Your task to perform on an android device: What is the news today? Image 0: 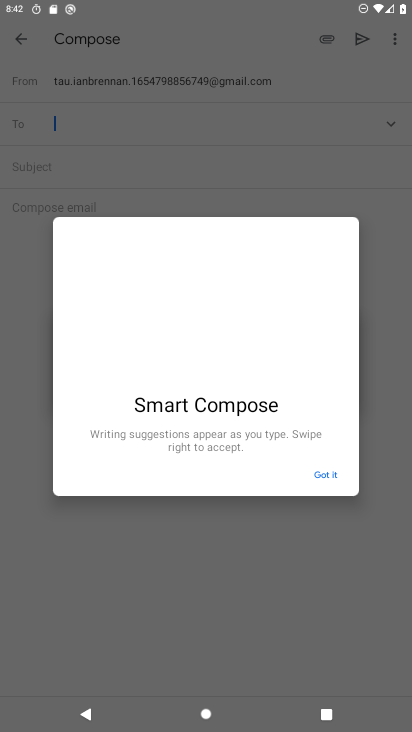
Step 0: press home button
Your task to perform on an android device: What is the news today? Image 1: 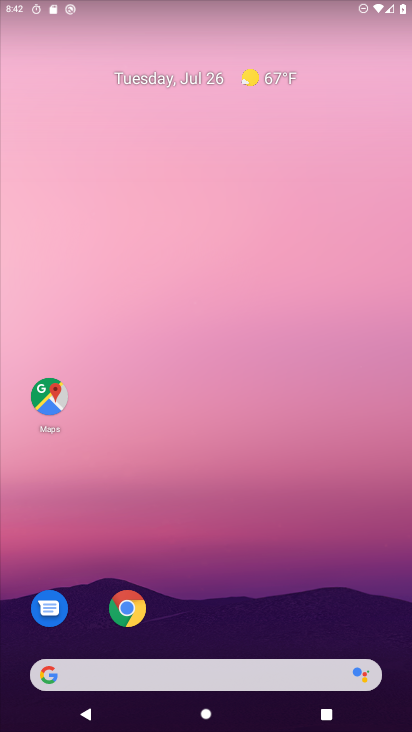
Step 1: click (196, 674)
Your task to perform on an android device: What is the news today? Image 2: 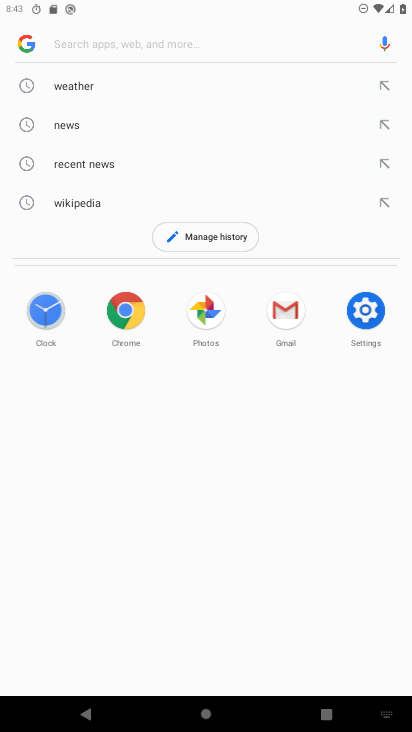
Step 2: type "news today ?"
Your task to perform on an android device: What is the news today? Image 3: 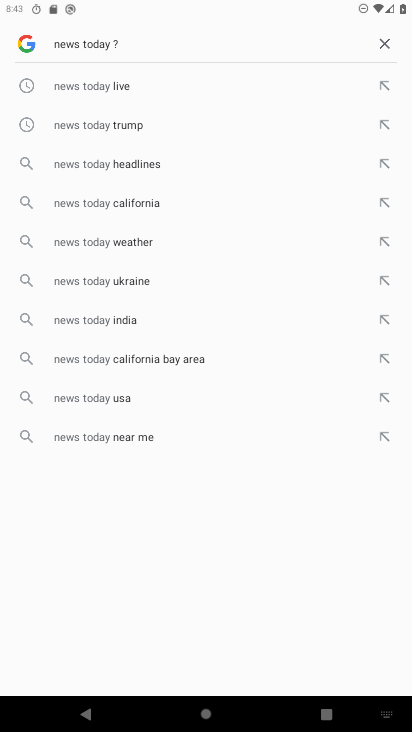
Step 3: click (127, 90)
Your task to perform on an android device: What is the news today? Image 4: 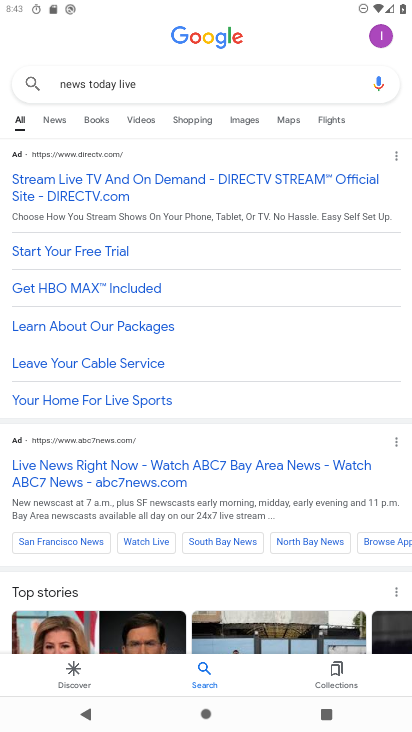
Step 4: task complete